Your task to perform on an android device: Check the price on the Dyson V11 Motorhead on Best Buy Image 0: 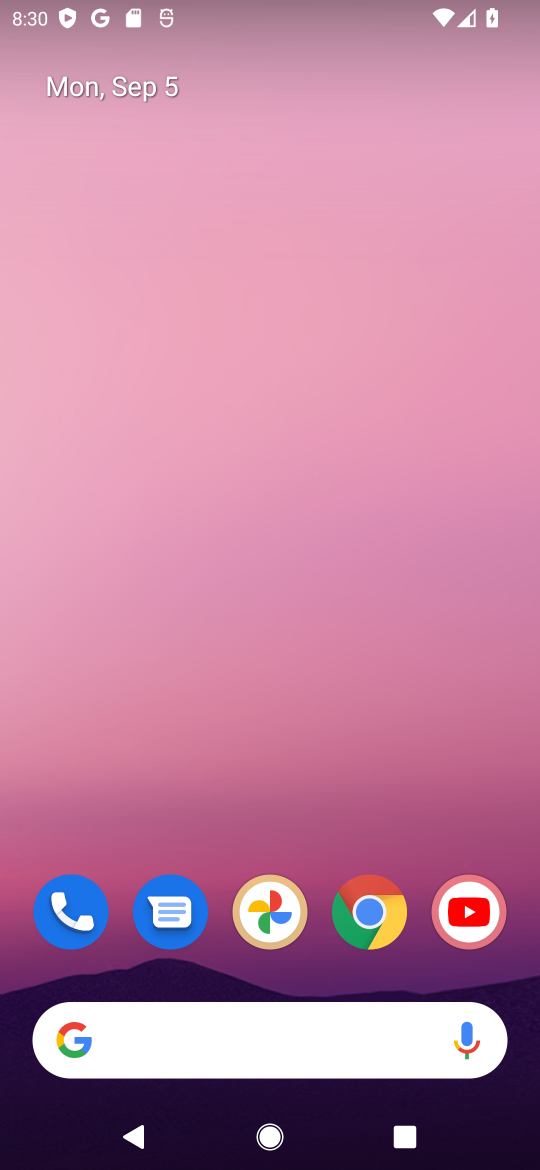
Step 0: click (384, 924)
Your task to perform on an android device: Check the price on the Dyson V11 Motorhead on Best Buy Image 1: 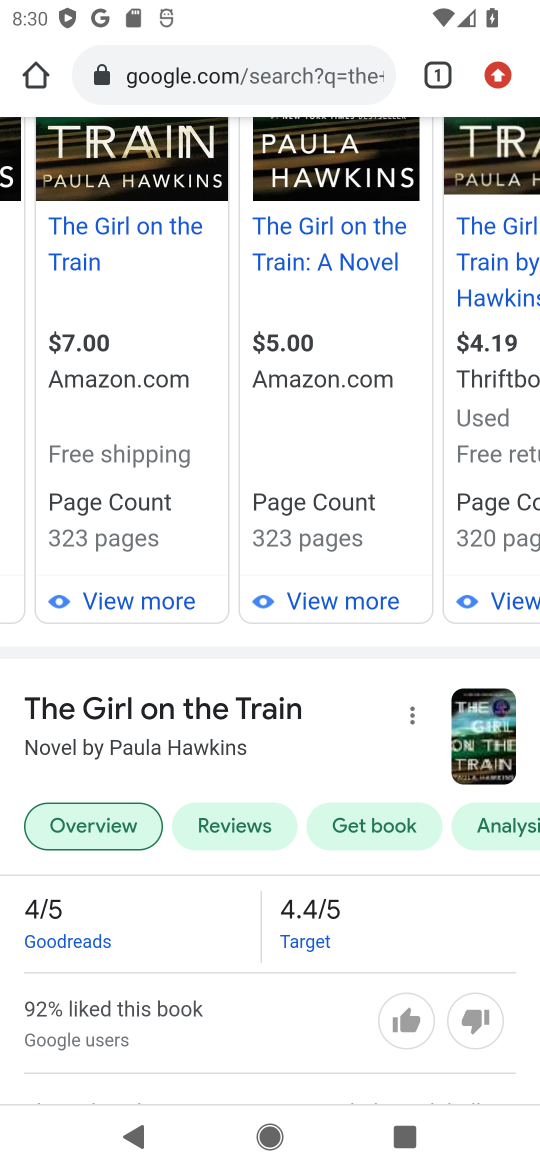
Step 1: click (206, 80)
Your task to perform on an android device: Check the price on the Dyson V11 Motorhead on Best Buy Image 2: 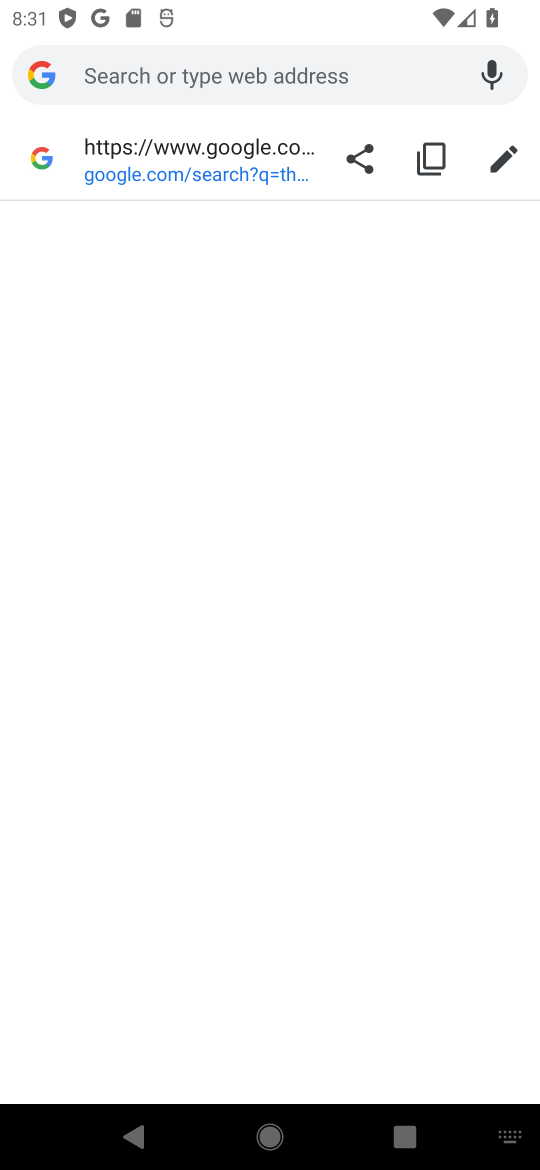
Step 2: type "best buy"
Your task to perform on an android device: Check the price on the Dyson V11 Motorhead on Best Buy Image 3: 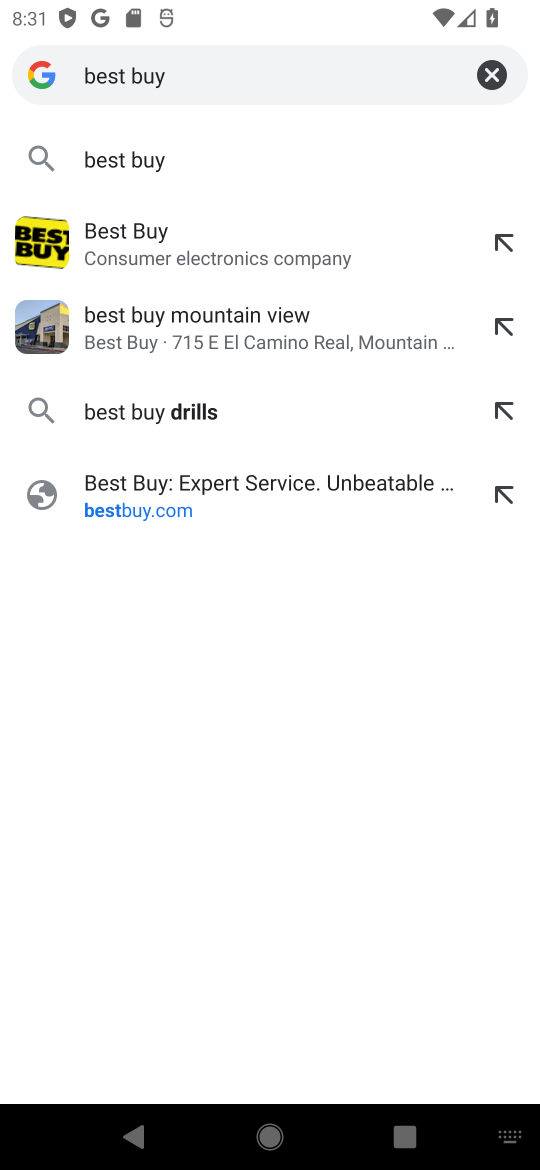
Step 3: press enter
Your task to perform on an android device: Check the price on the Dyson V11 Motorhead on Best Buy Image 4: 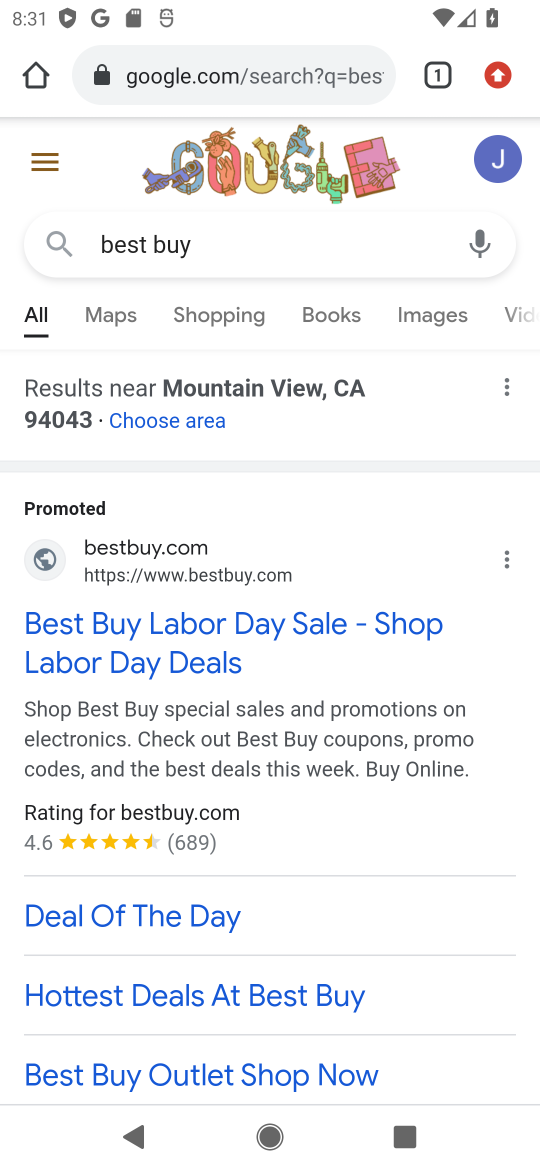
Step 4: click (170, 638)
Your task to perform on an android device: Check the price on the Dyson V11 Motorhead on Best Buy Image 5: 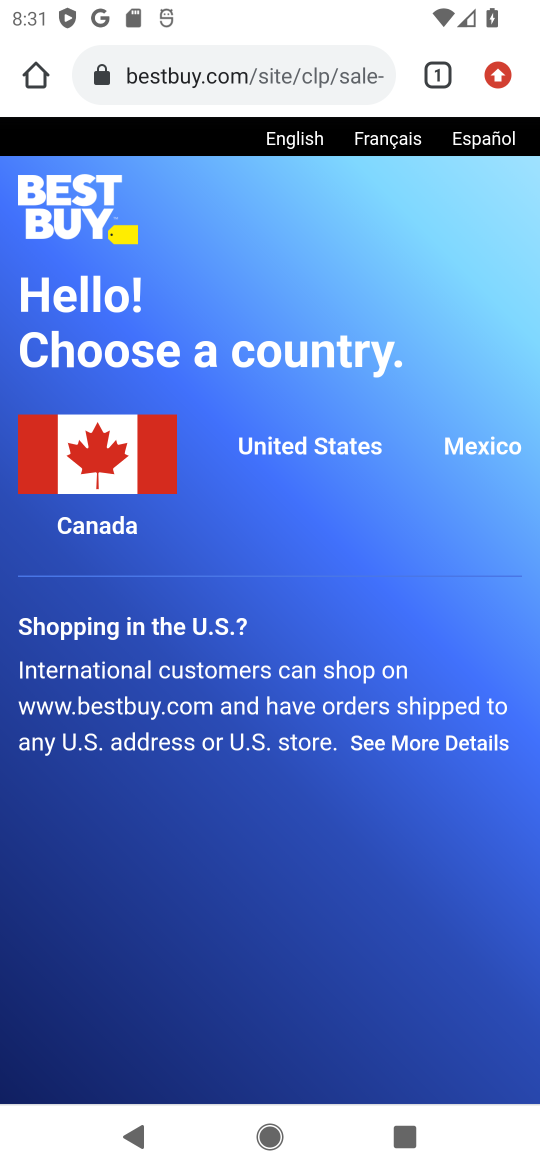
Step 5: click (252, 468)
Your task to perform on an android device: Check the price on the Dyson V11 Motorhead on Best Buy Image 6: 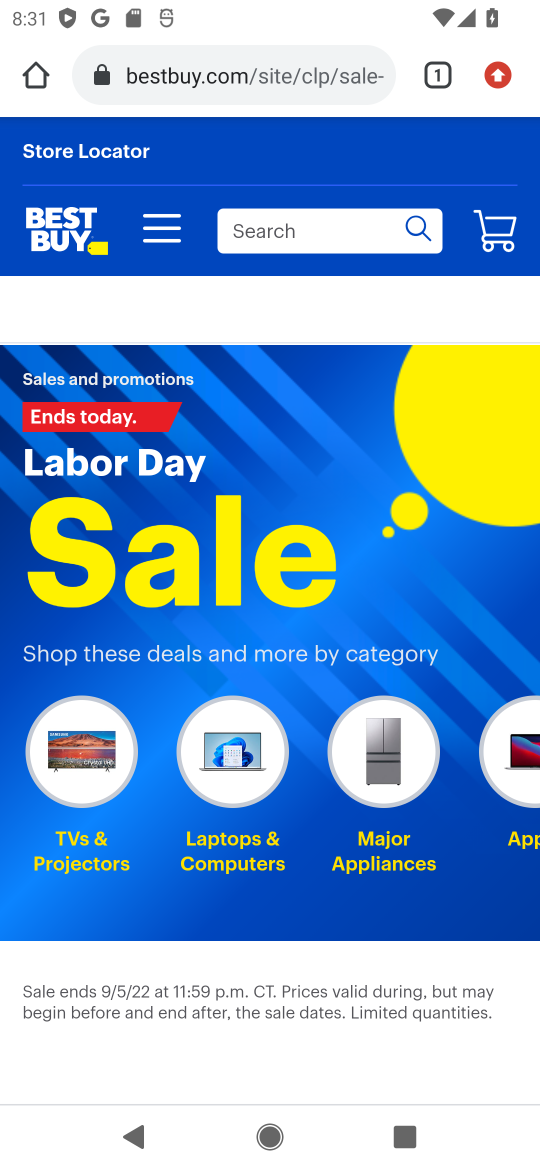
Step 6: click (288, 243)
Your task to perform on an android device: Check the price on the Dyson V11 Motorhead on Best Buy Image 7: 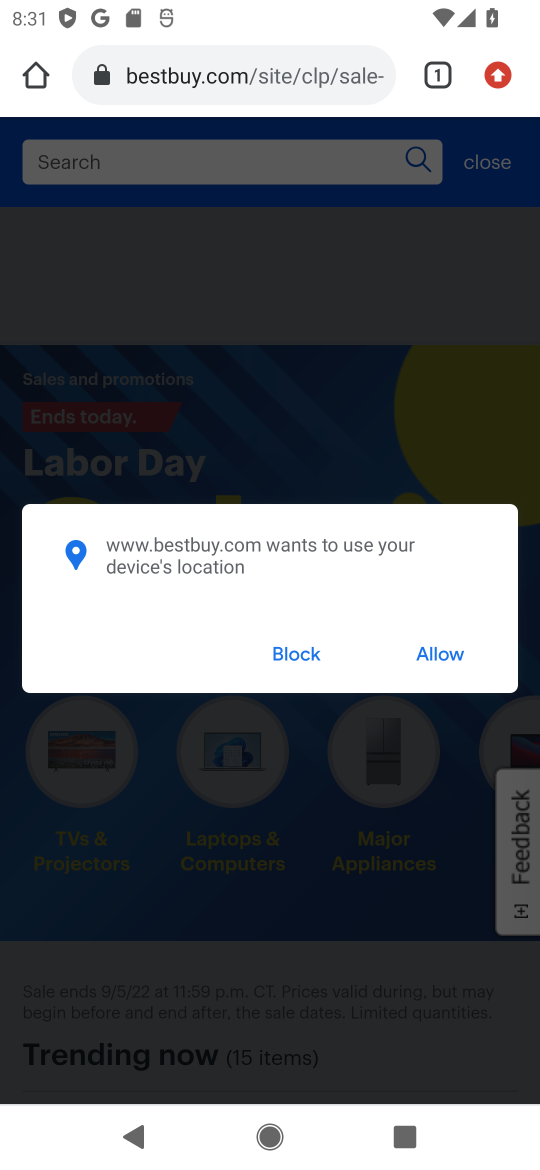
Step 7: click (436, 659)
Your task to perform on an android device: Check the price on the Dyson V11 Motorhead on Best Buy Image 8: 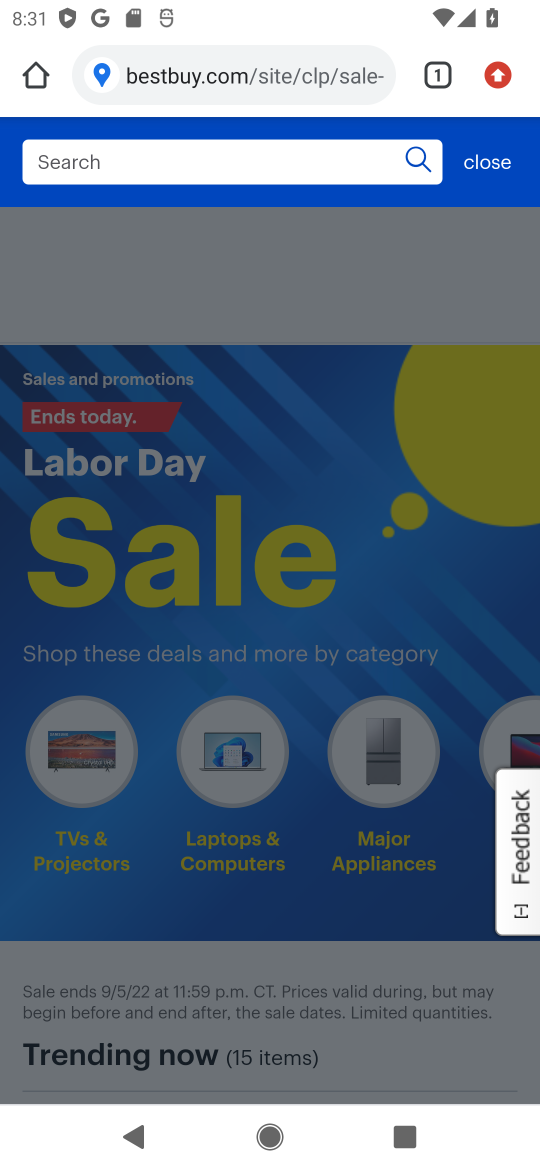
Step 8: click (72, 163)
Your task to perform on an android device: Check the price on the Dyson V11 Motorhead on Best Buy Image 9: 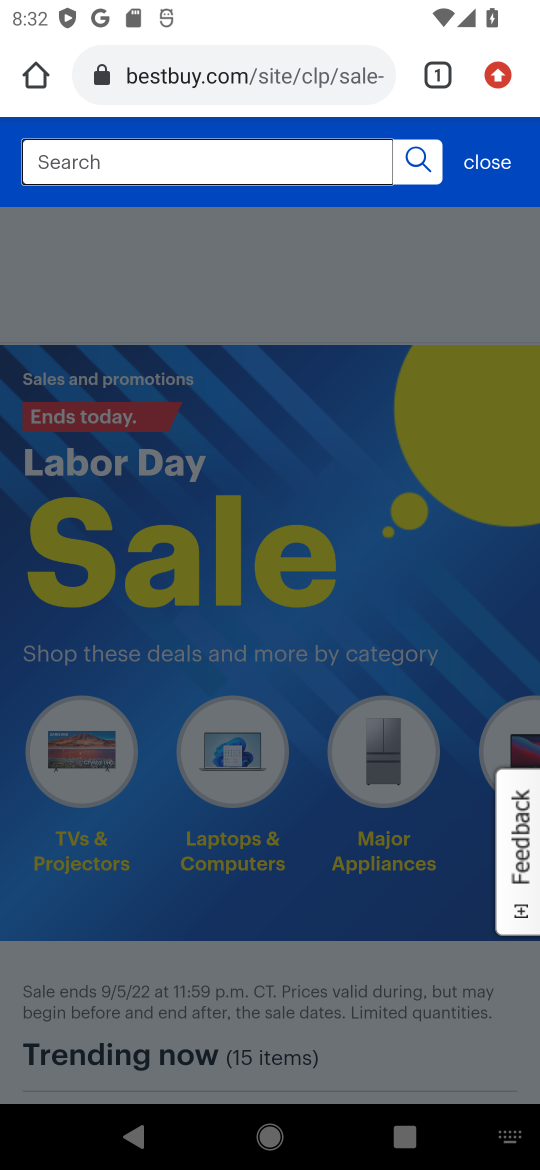
Step 9: type "Dyson V11 Motorhead"
Your task to perform on an android device: Check the price on the Dyson V11 Motorhead on Best Buy Image 10: 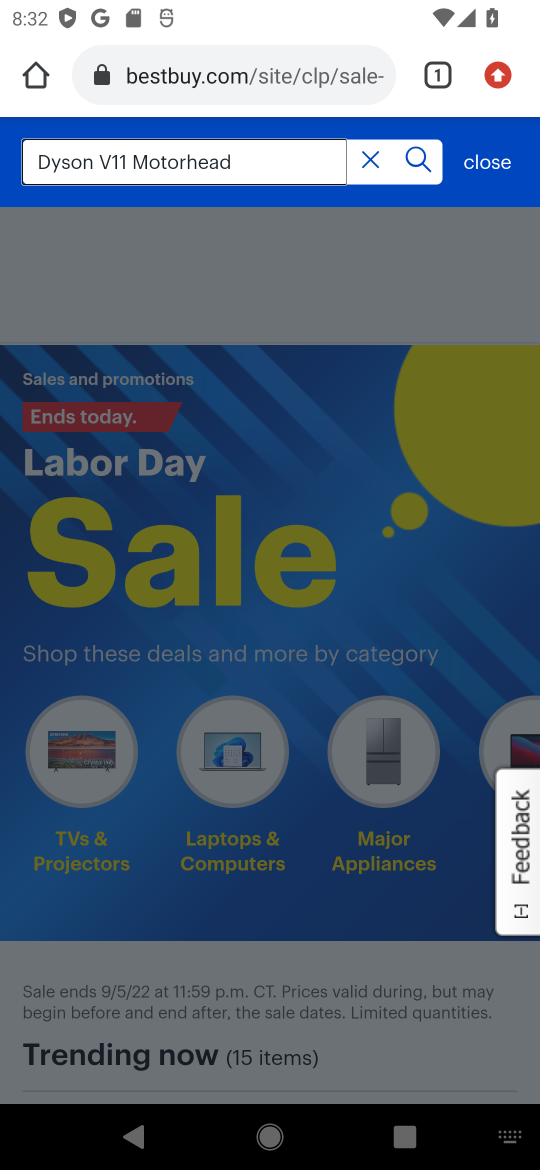
Step 10: press enter
Your task to perform on an android device: Check the price on the Dyson V11 Motorhead on Best Buy Image 11: 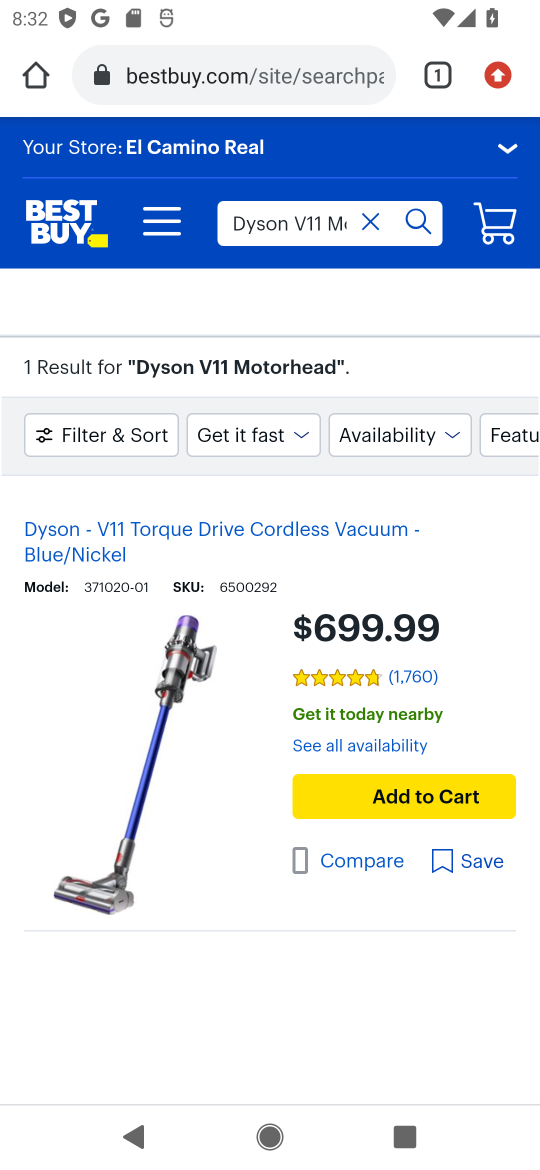
Step 11: drag from (178, 888) to (230, 729)
Your task to perform on an android device: Check the price on the Dyson V11 Motorhead on Best Buy Image 12: 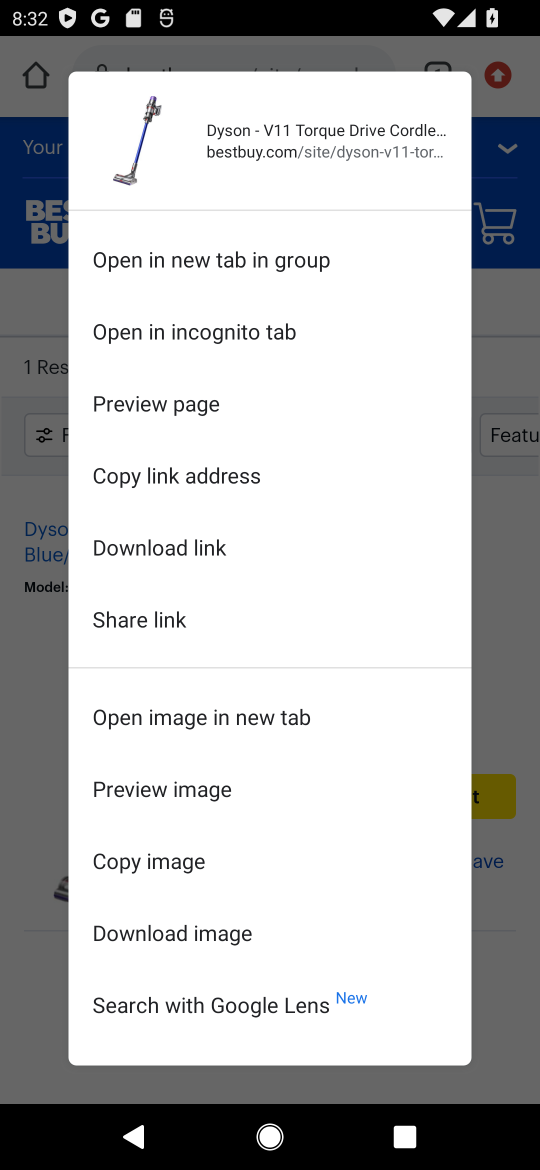
Step 12: click (38, 623)
Your task to perform on an android device: Check the price on the Dyson V11 Motorhead on Best Buy Image 13: 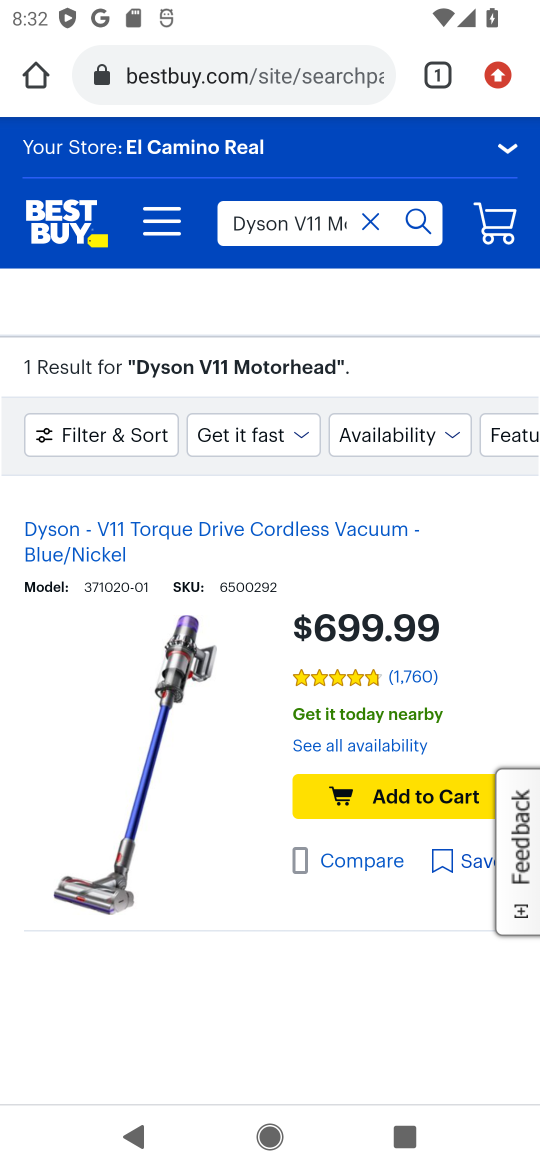
Step 13: click (128, 569)
Your task to perform on an android device: Check the price on the Dyson V11 Motorhead on Best Buy Image 14: 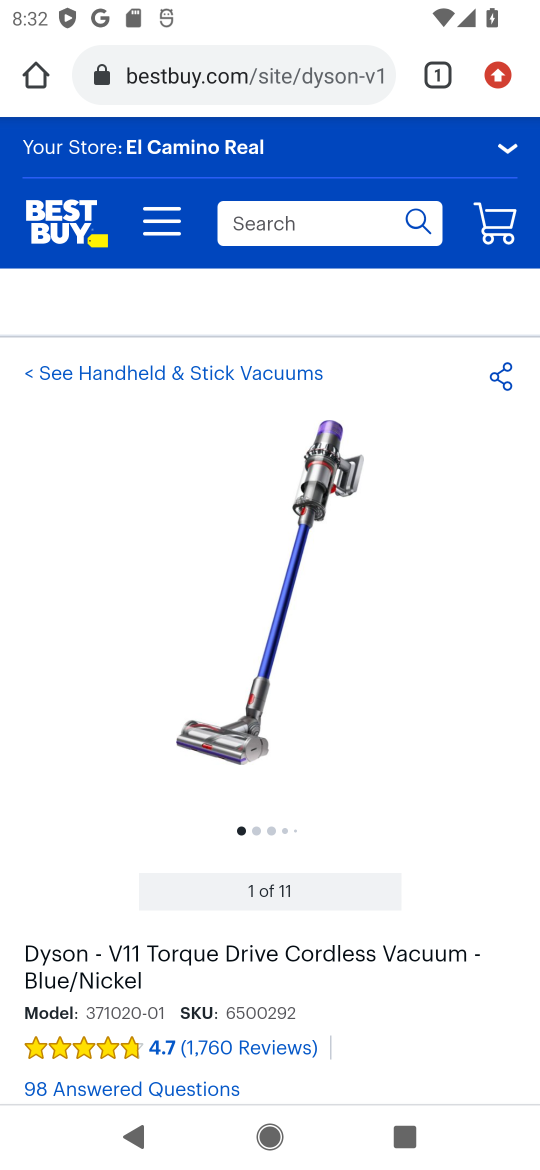
Step 14: press back button
Your task to perform on an android device: Check the price on the Dyson V11 Motorhead on Best Buy Image 15: 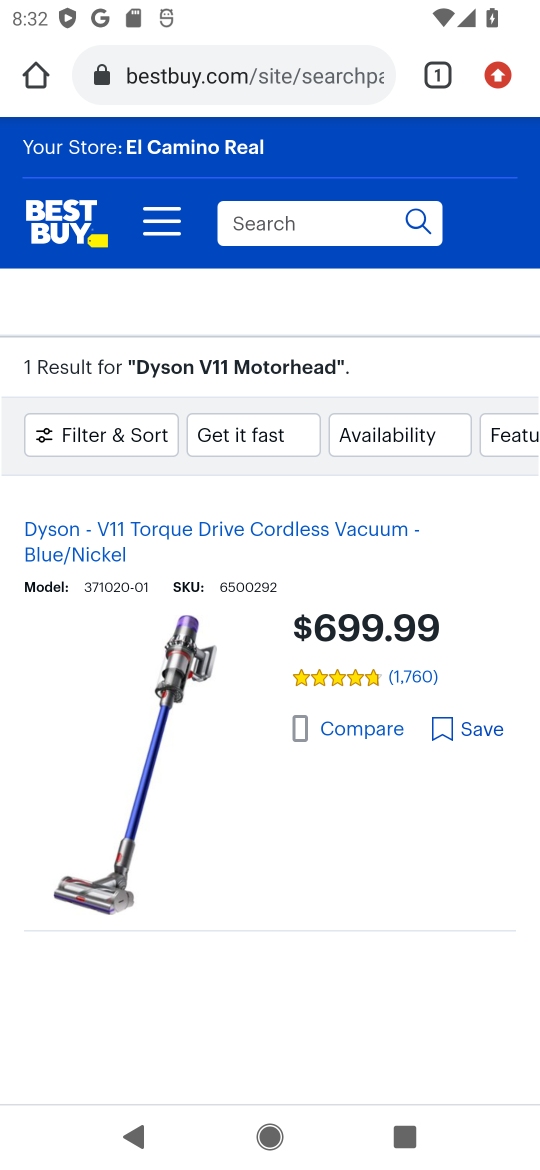
Step 15: drag from (322, 706) to (275, 220)
Your task to perform on an android device: Check the price on the Dyson V11 Motorhead on Best Buy Image 16: 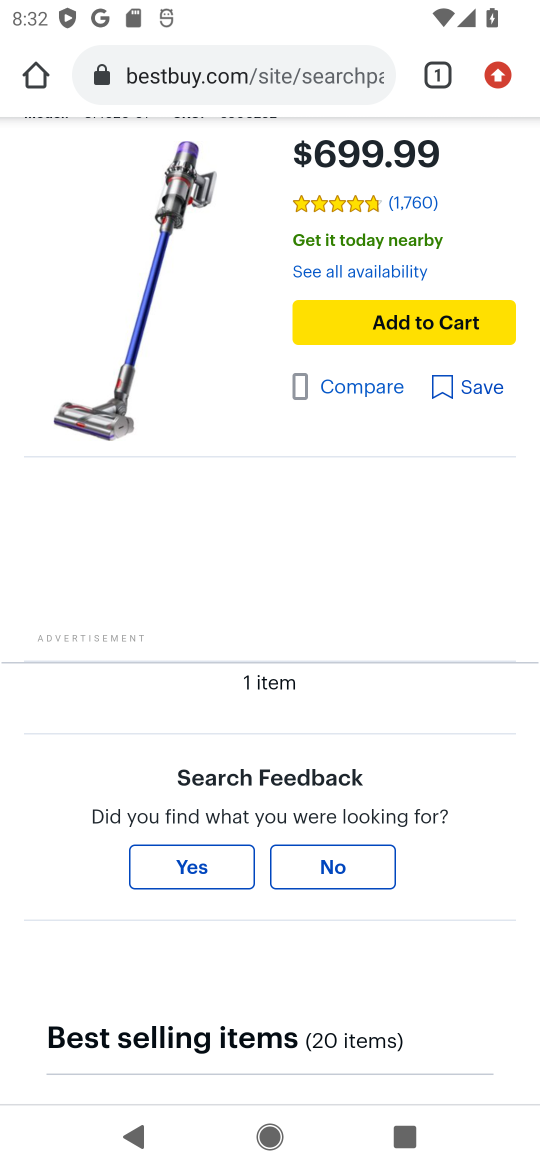
Step 16: click (319, 415)
Your task to perform on an android device: Check the price on the Dyson V11 Motorhead on Best Buy Image 17: 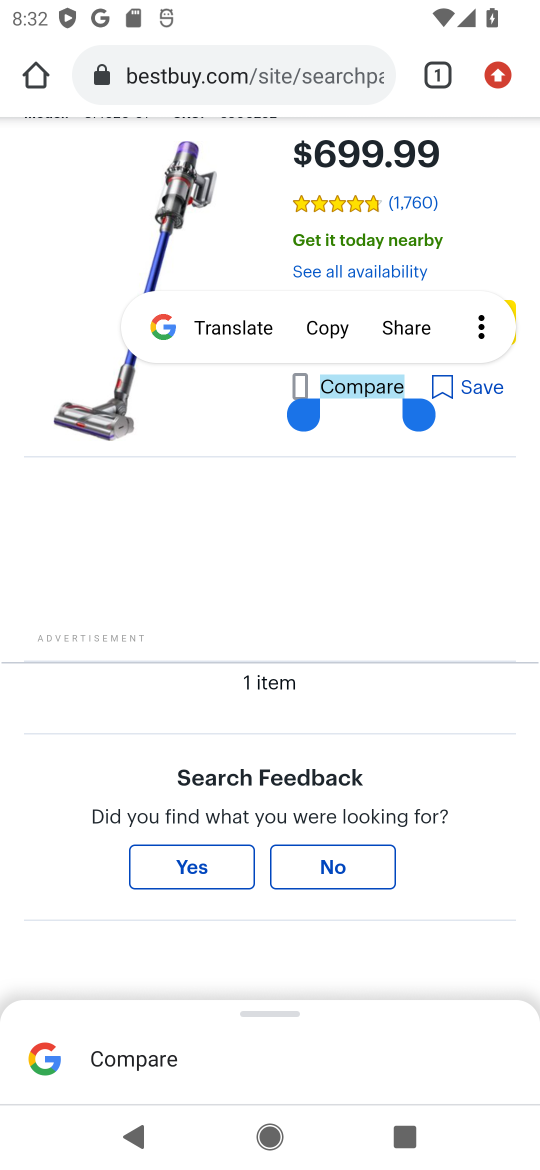
Step 17: click (440, 917)
Your task to perform on an android device: Check the price on the Dyson V11 Motorhead on Best Buy Image 18: 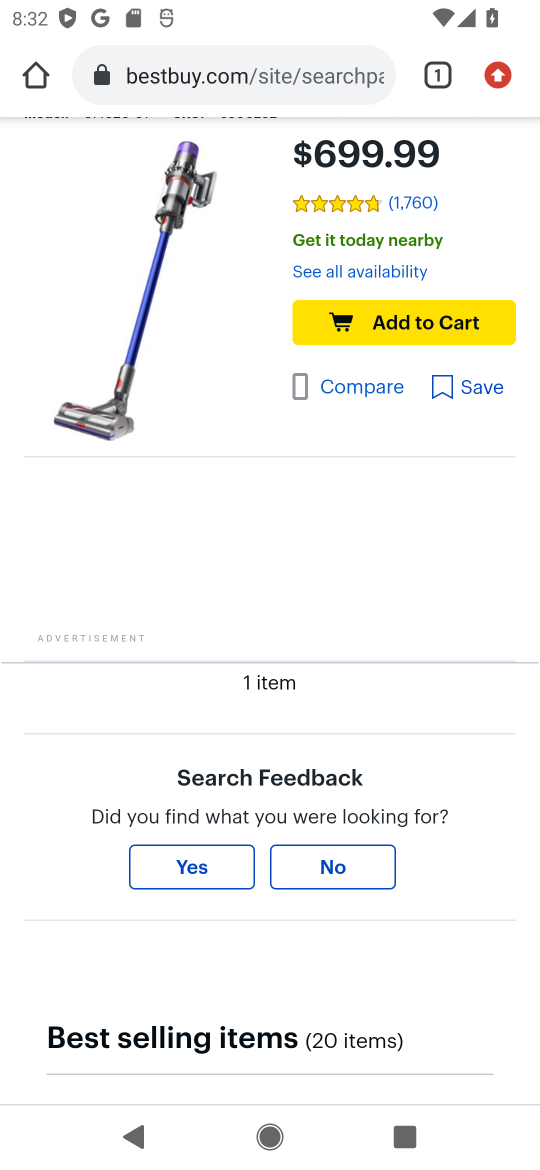
Step 18: task complete